Your task to perform on an android device: Open Wikipedia Image 0: 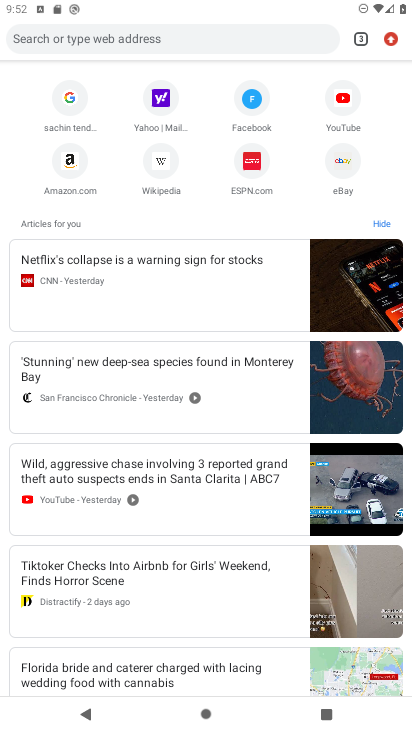
Step 0: click (161, 168)
Your task to perform on an android device: Open Wikipedia Image 1: 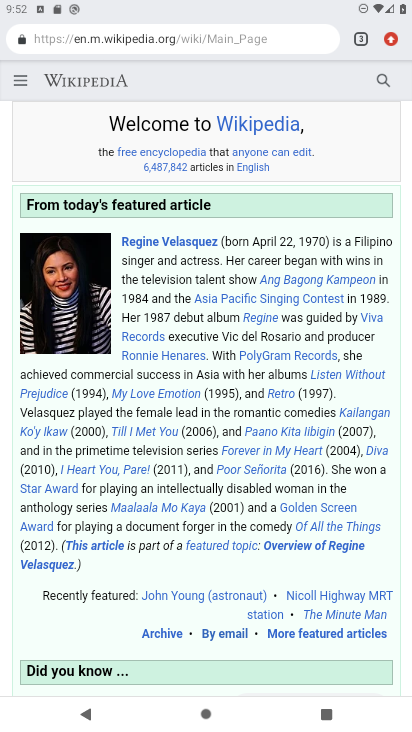
Step 1: task complete